Your task to perform on an android device: open app "Messenger Lite" (install if not already installed) and enter user name: "cataclysmic@outlook.com" and password: "victoriously" Image 0: 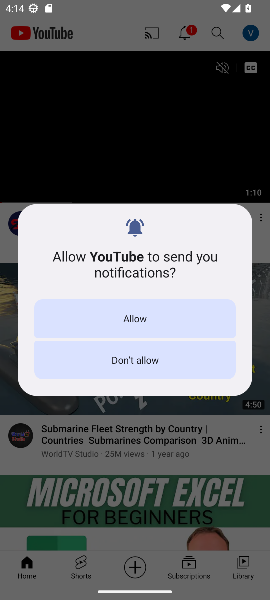
Step 0: press home button
Your task to perform on an android device: open app "Messenger Lite" (install if not already installed) and enter user name: "cataclysmic@outlook.com" and password: "victoriously" Image 1: 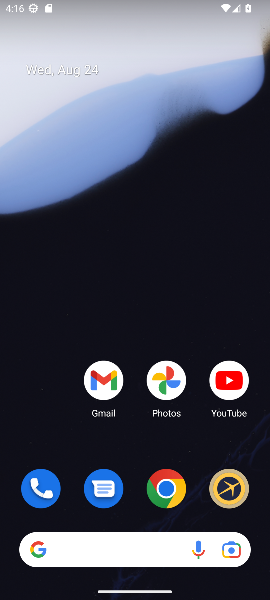
Step 1: drag from (134, 507) to (126, 27)
Your task to perform on an android device: open app "Messenger Lite" (install if not already installed) and enter user name: "cataclysmic@outlook.com" and password: "victoriously" Image 2: 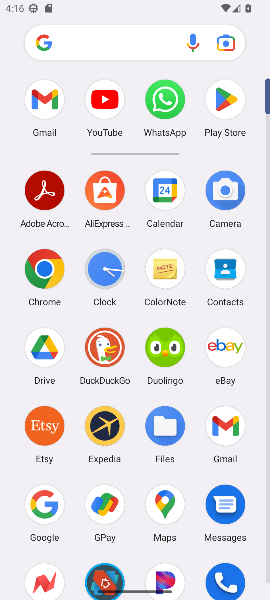
Step 2: click (227, 84)
Your task to perform on an android device: open app "Messenger Lite" (install if not already installed) and enter user name: "cataclysmic@outlook.com" and password: "victoriously" Image 3: 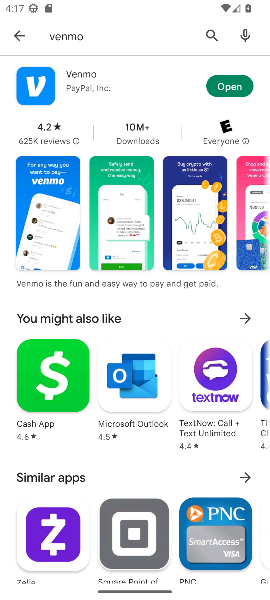
Step 3: click (211, 34)
Your task to perform on an android device: open app "Messenger Lite" (install if not already installed) and enter user name: "cataclysmic@outlook.com" and password: "victoriously" Image 4: 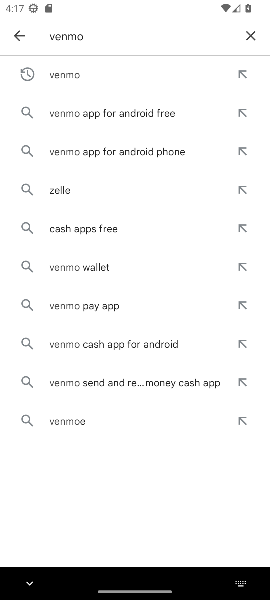
Step 4: click (255, 34)
Your task to perform on an android device: open app "Messenger Lite" (install if not already installed) and enter user name: "cataclysmic@outlook.com" and password: "victoriously" Image 5: 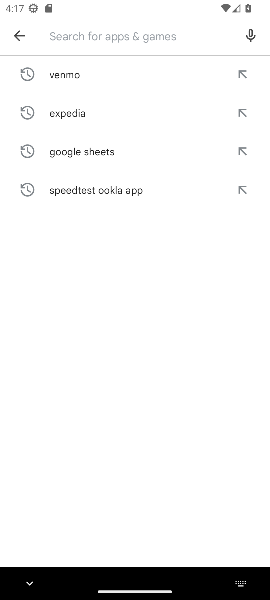
Step 5: type "messanger"
Your task to perform on an android device: open app "Messenger Lite" (install if not already installed) and enter user name: "cataclysmic@outlook.com" and password: "victoriously" Image 6: 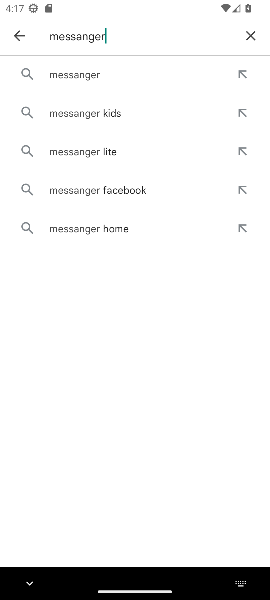
Step 6: click (100, 145)
Your task to perform on an android device: open app "Messenger Lite" (install if not already installed) and enter user name: "cataclysmic@outlook.com" and password: "victoriously" Image 7: 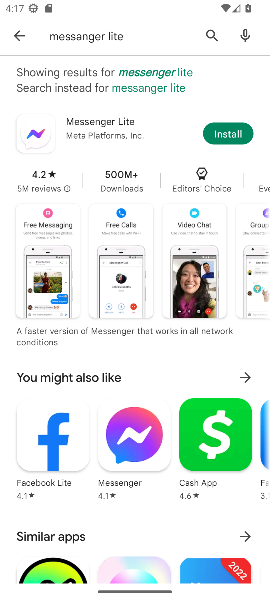
Step 7: click (225, 125)
Your task to perform on an android device: open app "Messenger Lite" (install if not already installed) and enter user name: "cataclysmic@outlook.com" and password: "victoriously" Image 8: 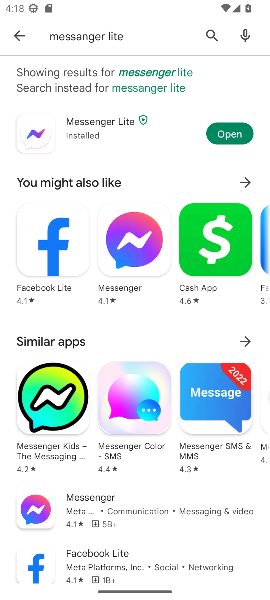
Step 8: click (225, 125)
Your task to perform on an android device: open app "Messenger Lite" (install if not already installed) and enter user name: "cataclysmic@outlook.com" and password: "victoriously" Image 9: 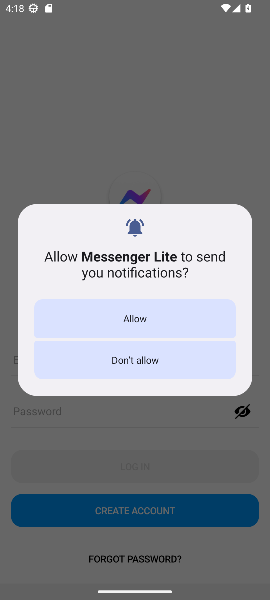
Step 9: click (137, 325)
Your task to perform on an android device: open app "Messenger Lite" (install if not already installed) and enter user name: "cataclysmic@outlook.com" and password: "victoriously" Image 10: 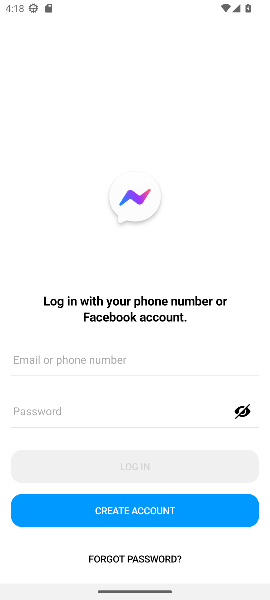
Step 10: click (107, 352)
Your task to perform on an android device: open app "Messenger Lite" (install if not already installed) and enter user name: "cataclysmic@outlook.com" and password: "victoriously" Image 11: 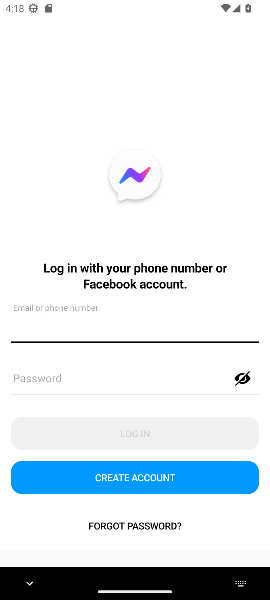
Step 11: type "cataclysmic@outlook.com"
Your task to perform on an android device: open app "Messenger Lite" (install if not already installed) and enter user name: "cataclysmic@outlook.com" and password: "victoriously" Image 12: 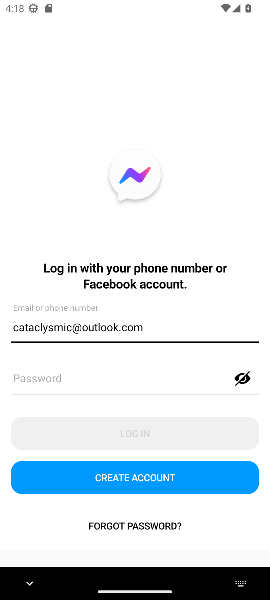
Step 12: click (88, 361)
Your task to perform on an android device: open app "Messenger Lite" (install if not already installed) and enter user name: "cataclysmic@outlook.com" and password: "victoriously" Image 13: 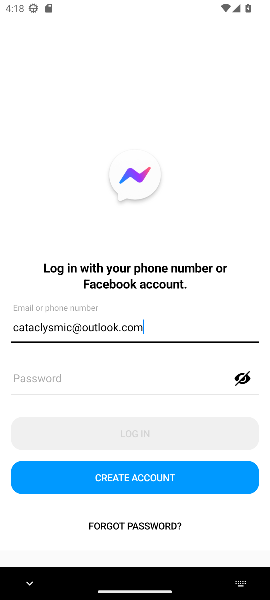
Step 13: click (83, 371)
Your task to perform on an android device: open app "Messenger Lite" (install if not already installed) and enter user name: "cataclysmic@outlook.com" and password: "victoriously" Image 14: 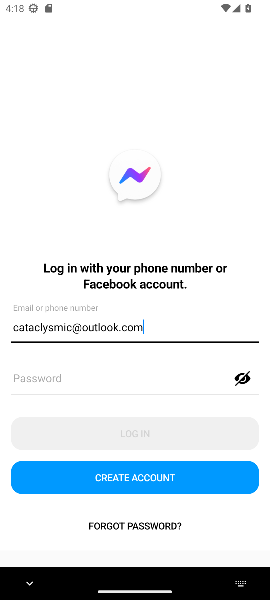
Step 14: click (83, 371)
Your task to perform on an android device: open app "Messenger Lite" (install if not already installed) and enter user name: "cataclysmic@outlook.com" and password: "victoriously" Image 15: 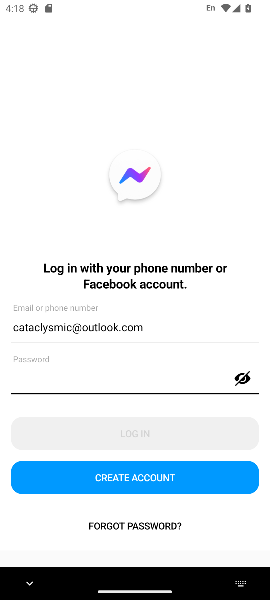
Step 15: click (54, 380)
Your task to perform on an android device: open app "Messenger Lite" (install if not already installed) and enter user name: "cataclysmic@outlook.com" and password: "victoriously" Image 16: 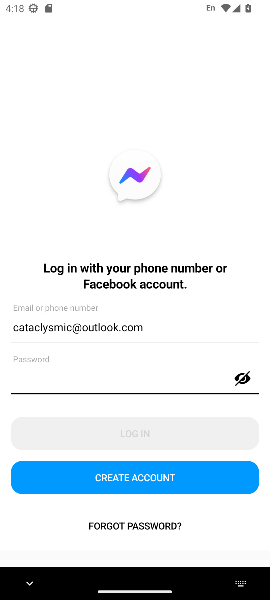
Step 16: type "victoriously"
Your task to perform on an android device: open app "Messenger Lite" (install if not already installed) and enter user name: "cataclysmic@outlook.com" and password: "victoriously" Image 17: 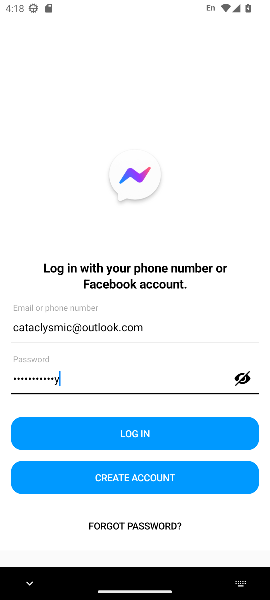
Step 17: click (123, 436)
Your task to perform on an android device: open app "Messenger Lite" (install if not already installed) and enter user name: "cataclysmic@outlook.com" and password: "victoriously" Image 18: 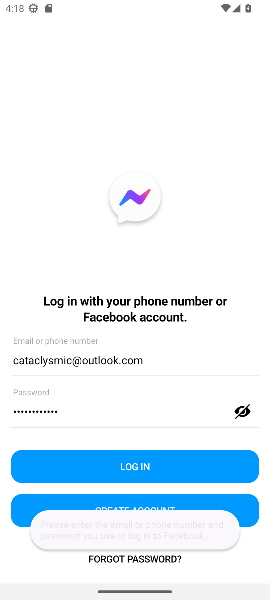
Step 18: task complete